Your task to perform on an android device: Go to privacy settings Image 0: 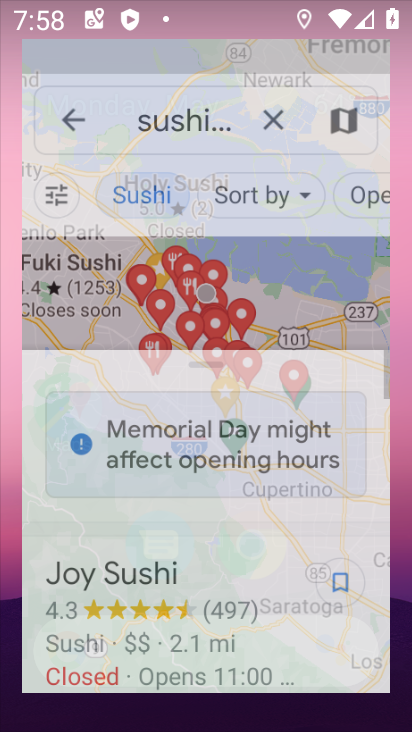
Step 0: drag from (197, 643) to (173, 222)
Your task to perform on an android device: Go to privacy settings Image 1: 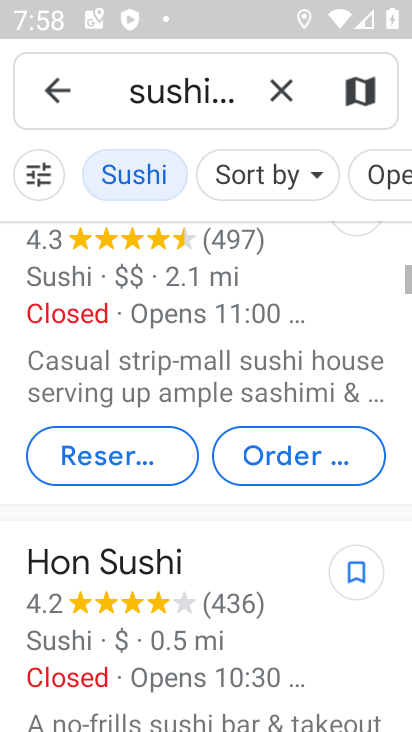
Step 1: press home button
Your task to perform on an android device: Go to privacy settings Image 2: 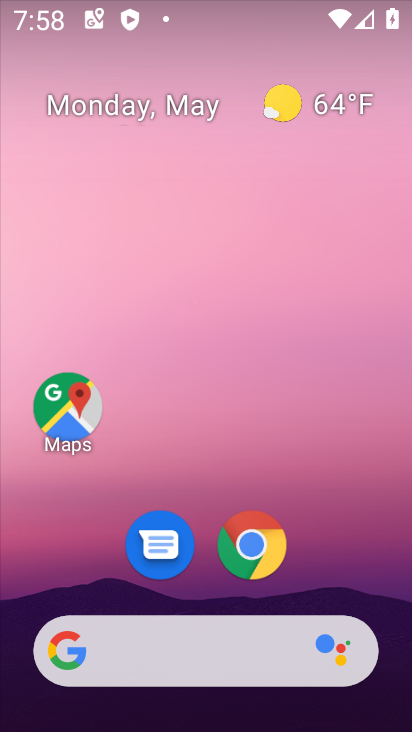
Step 2: drag from (190, 653) to (160, 204)
Your task to perform on an android device: Go to privacy settings Image 3: 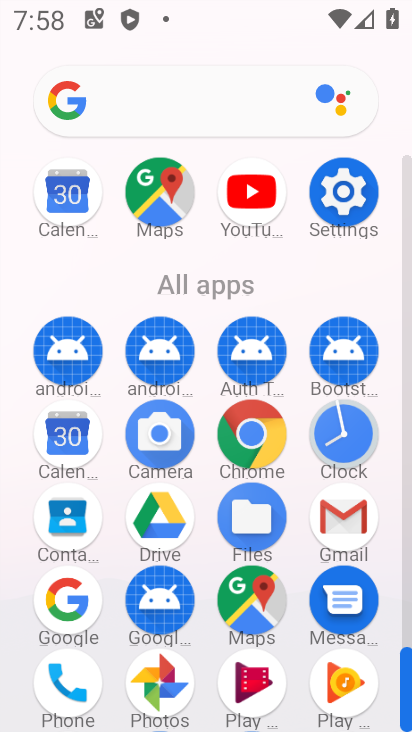
Step 3: click (333, 208)
Your task to perform on an android device: Go to privacy settings Image 4: 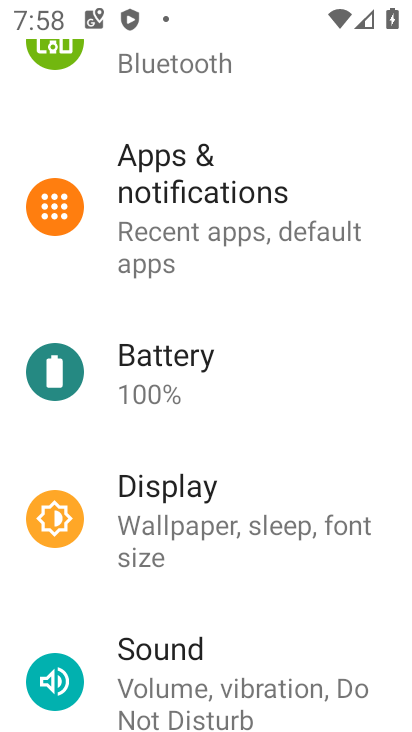
Step 4: drag from (161, 708) to (143, 294)
Your task to perform on an android device: Go to privacy settings Image 5: 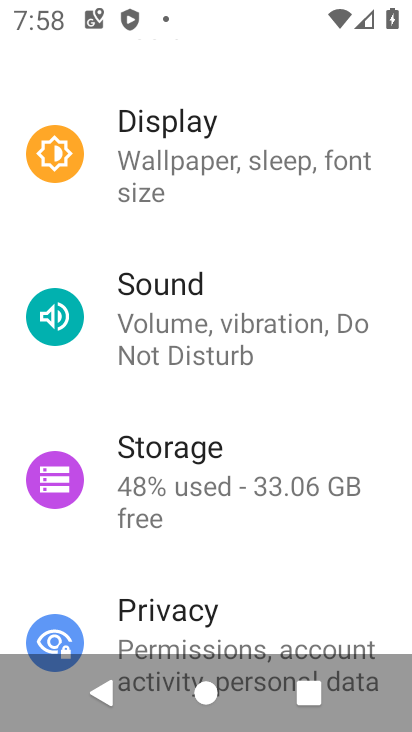
Step 5: click (164, 591)
Your task to perform on an android device: Go to privacy settings Image 6: 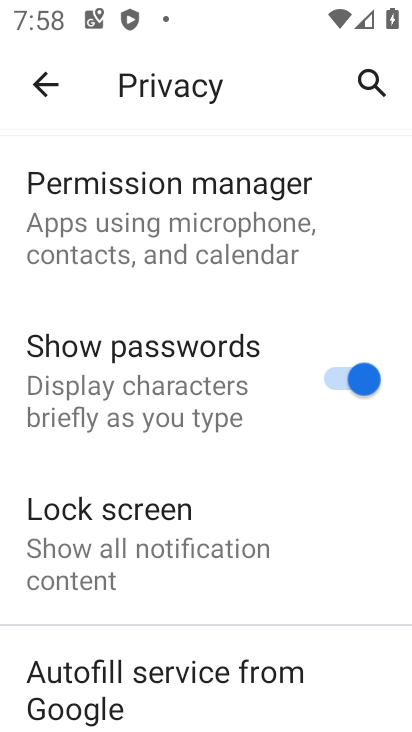
Step 6: task complete